Your task to perform on an android device: toggle pop-ups in chrome Image 0: 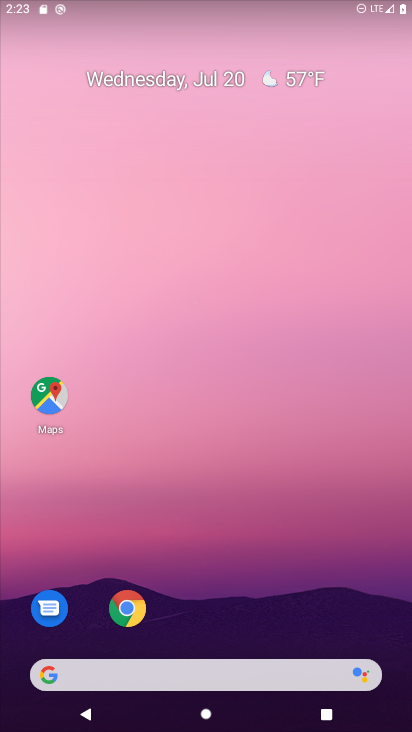
Step 0: drag from (237, 699) to (257, 234)
Your task to perform on an android device: toggle pop-ups in chrome Image 1: 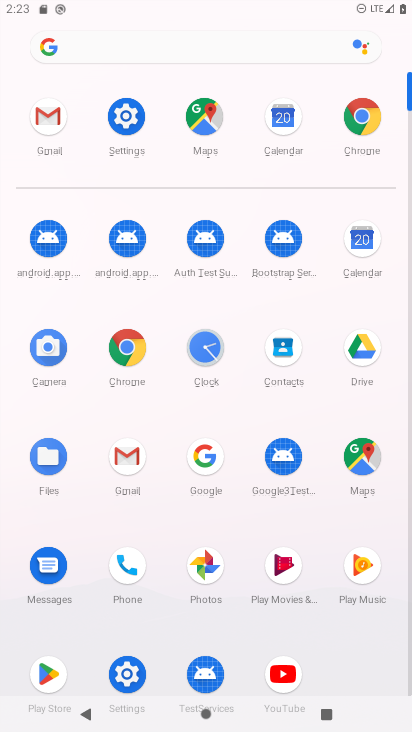
Step 1: click (130, 347)
Your task to perform on an android device: toggle pop-ups in chrome Image 2: 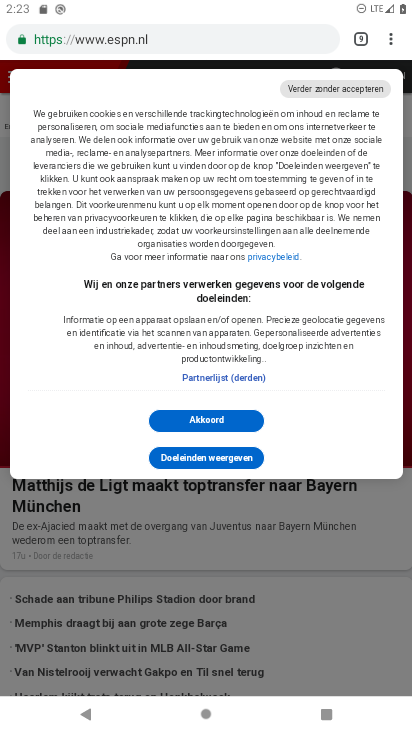
Step 2: click (389, 42)
Your task to perform on an android device: toggle pop-ups in chrome Image 3: 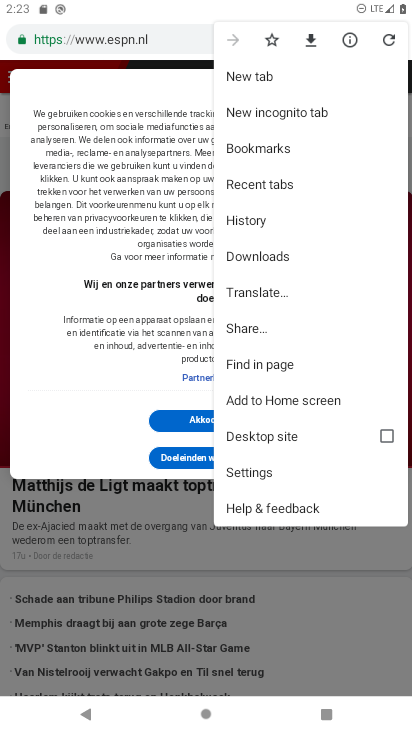
Step 3: click (247, 468)
Your task to perform on an android device: toggle pop-ups in chrome Image 4: 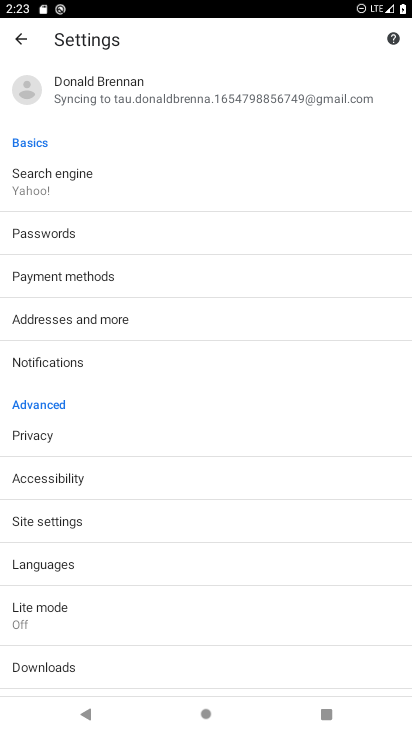
Step 4: click (40, 525)
Your task to perform on an android device: toggle pop-ups in chrome Image 5: 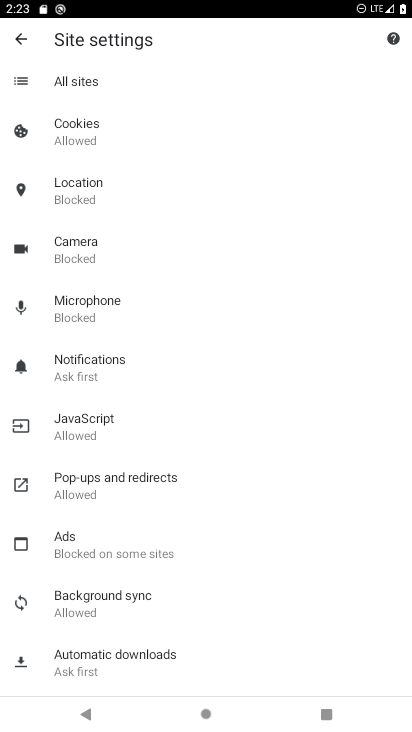
Step 5: click (91, 479)
Your task to perform on an android device: toggle pop-ups in chrome Image 6: 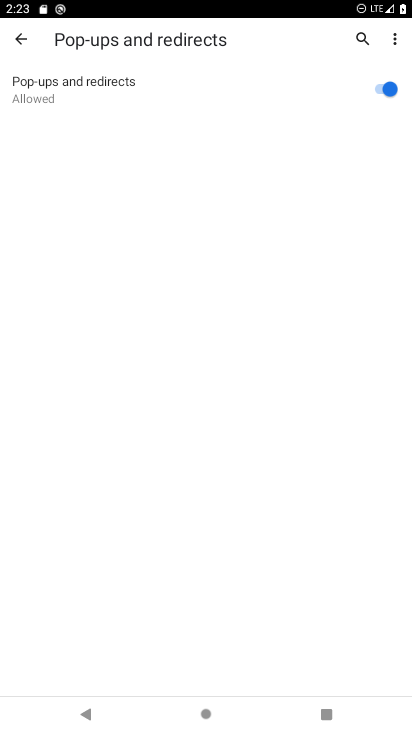
Step 6: click (377, 93)
Your task to perform on an android device: toggle pop-ups in chrome Image 7: 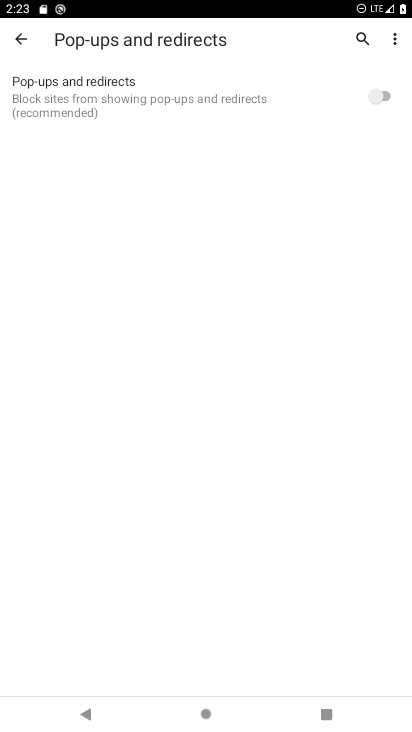
Step 7: task complete